Your task to perform on an android device: change your default location settings in chrome Image 0: 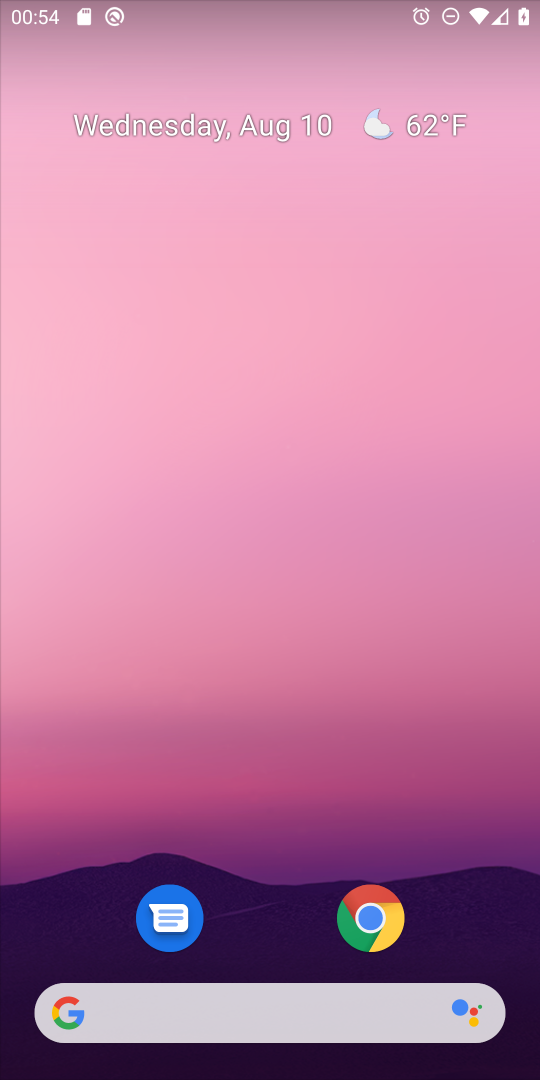
Step 0: drag from (264, 896) to (290, 128)
Your task to perform on an android device: change your default location settings in chrome Image 1: 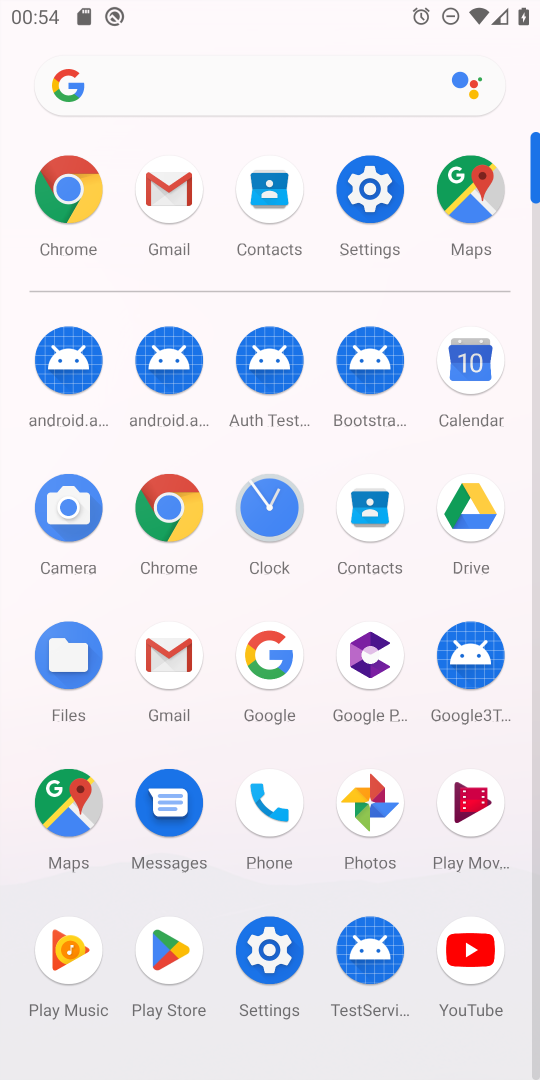
Step 1: click (171, 502)
Your task to perform on an android device: change your default location settings in chrome Image 2: 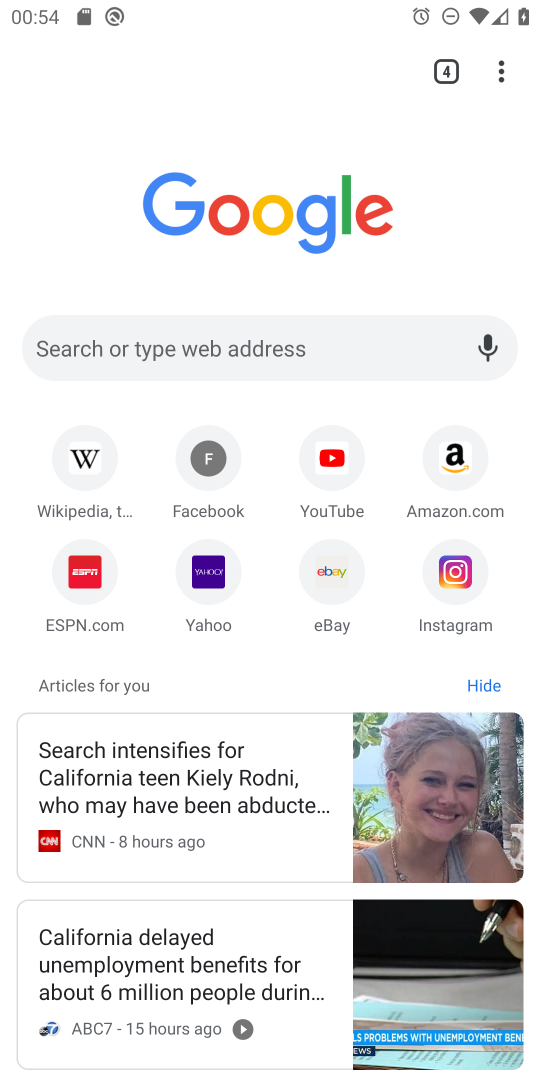
Step 2: drag from (502, 61) to (287, 690)
Your task to perform on an android device: change your default location settings in chrome Image 3: 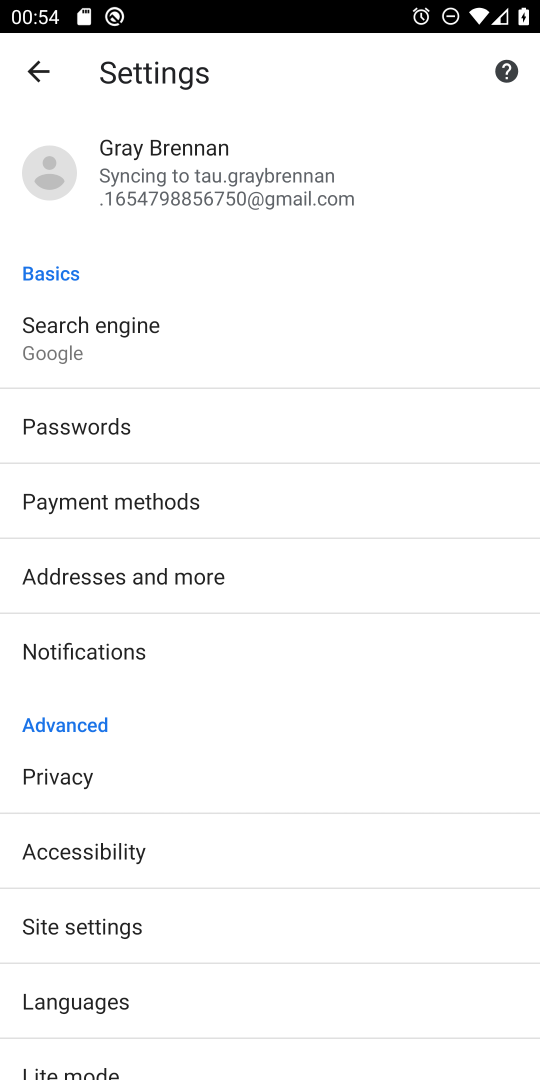
Step 3: click (109, 934)
Your task to perform on an android device: change your default location settings in chrome Image 4: 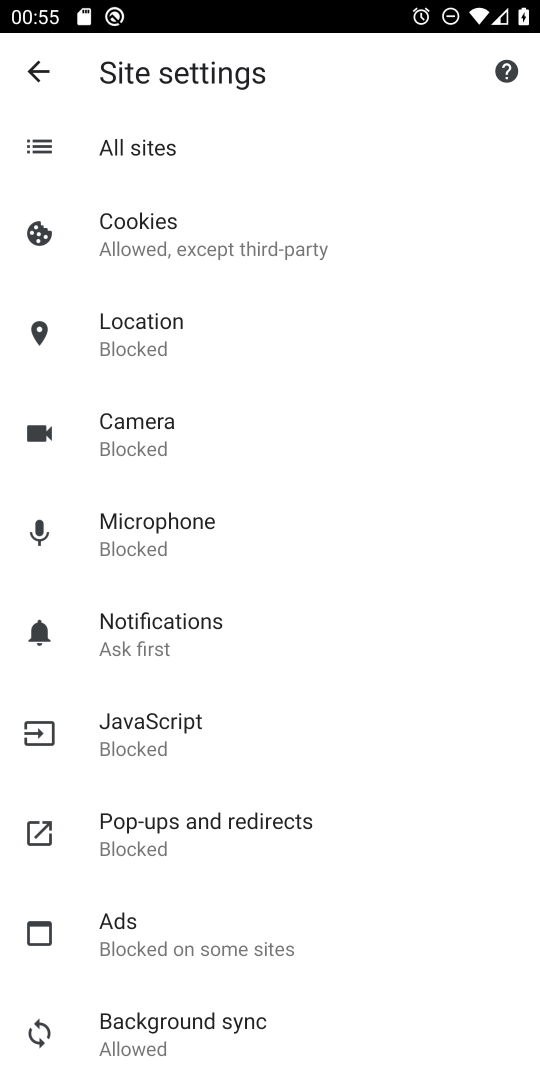
Step 4: click (160, 350)
Your task to perform on an android device: change your default location settings in chrome Image 5: 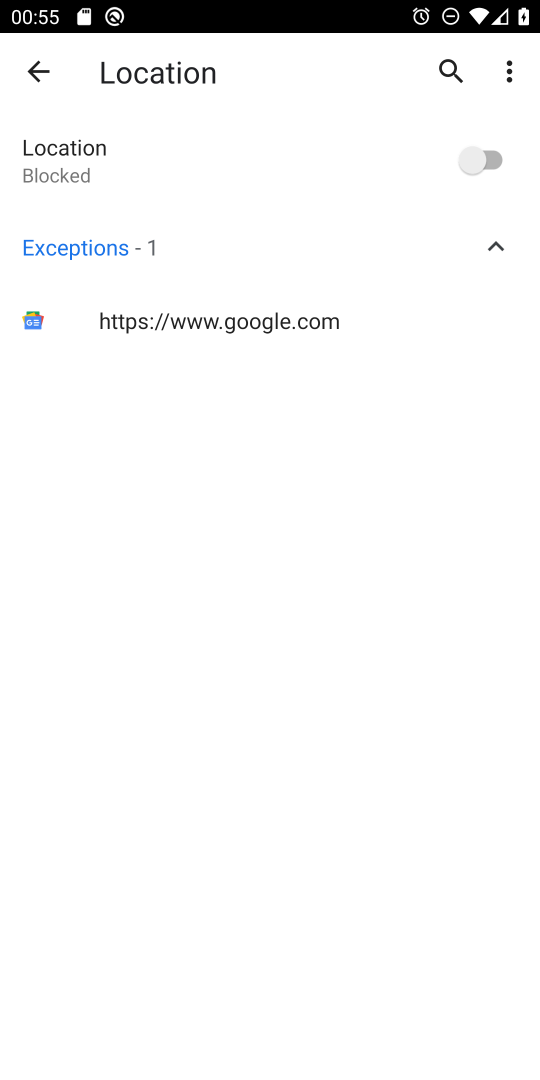
Step 5: click (478, 153)
Your task to perform on an android device: change your default location settings in chrome Image 6: 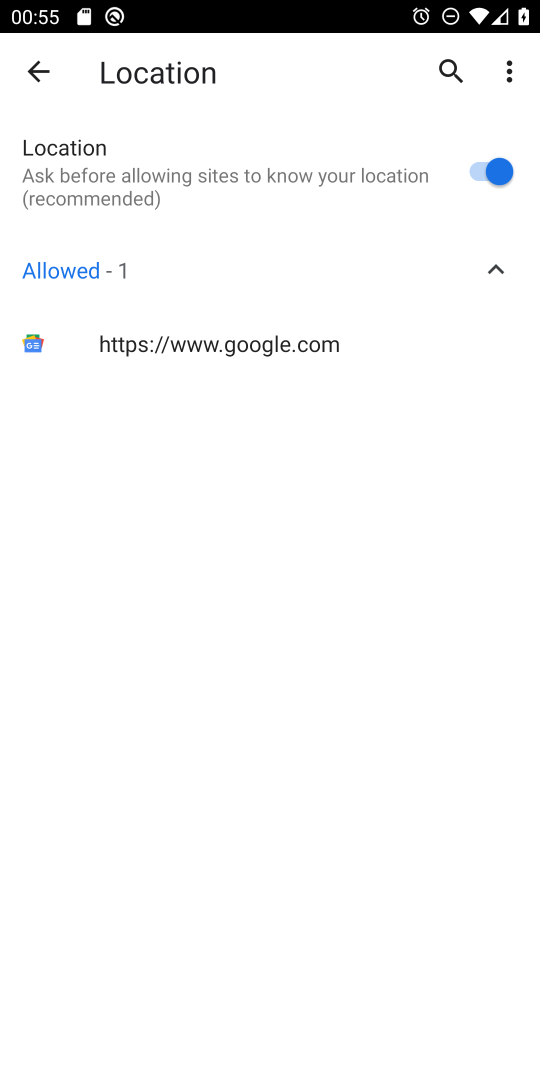
Step 6: task complete